Your task to perform on an android device: toggle data saver in the chrome app Image 0: 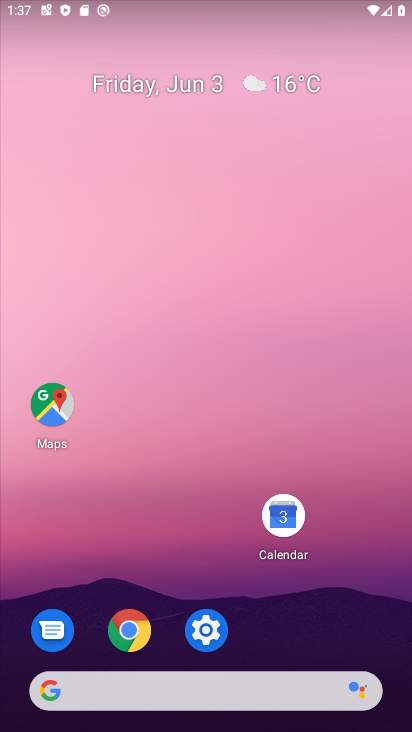
Step 0: press home button
Your task to perform on an android device: toggle data saver in the chrome app Image 1: 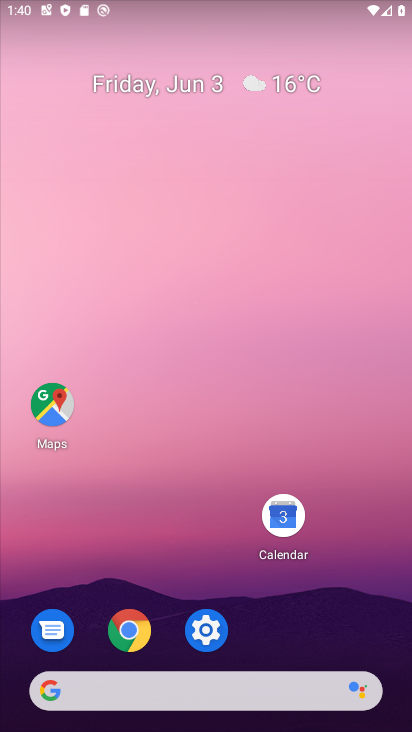
Step 1: drag from (298, 630) to (254, 70)
Your task to perform on an android device: toggle data saver in the chrome app Image 2: 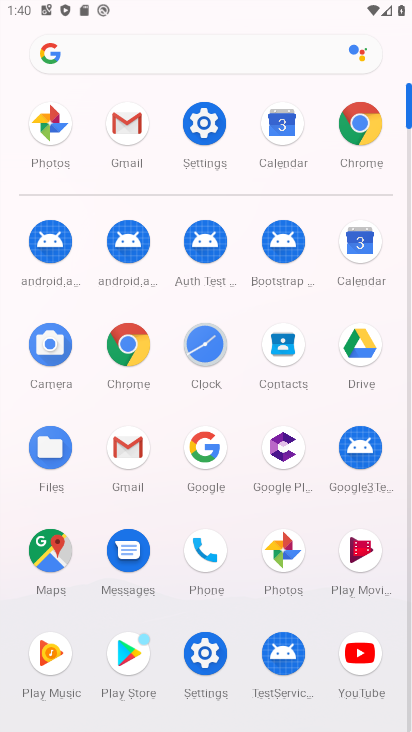
Step 2: click (341, 128)
Your task to perform on an android device: toggle data saver in the chrome app Image 3: 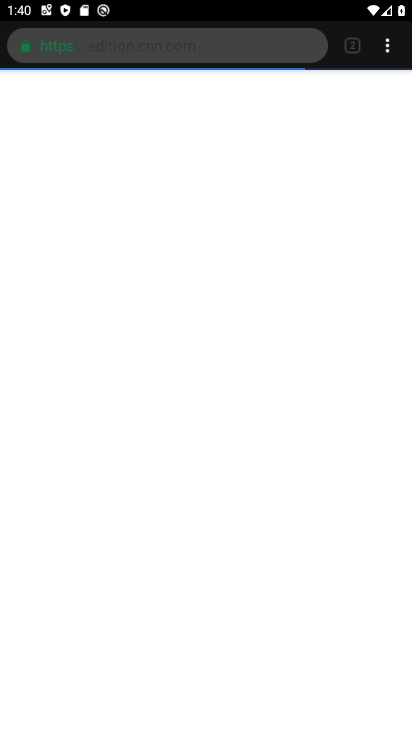
Step 3: click (394, 41)
Your task to perform on an android device: toggle data saver in the chrome app Image 4: 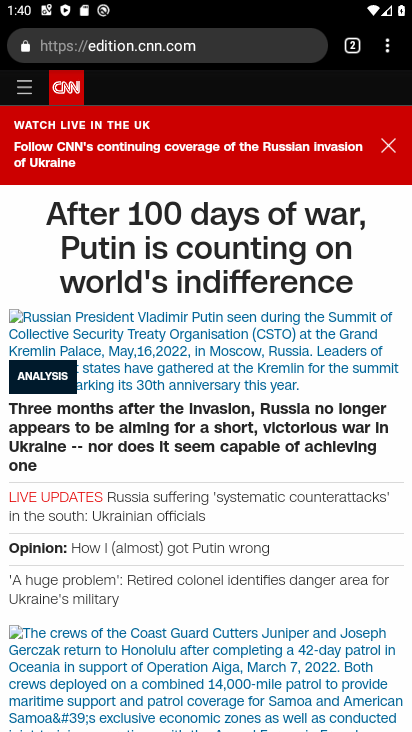
Step 4: click (383, 53)
Your task to perform on an android device: toggle data saver in the chrome app Image 5: 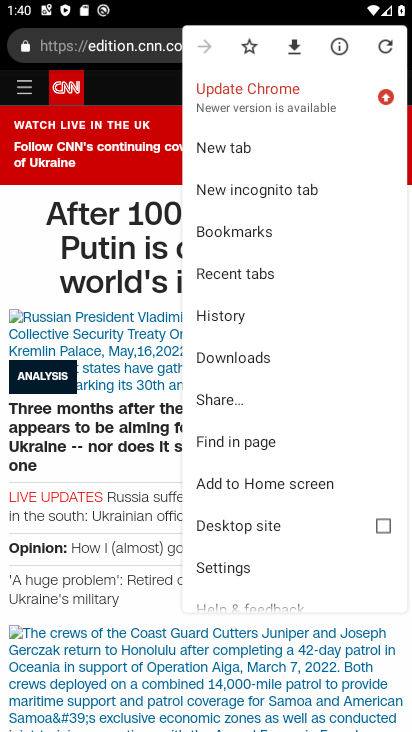
Step 5: click (230, 570)
Your task to perform on an android device: toggle data saver in the chrome app Image 6: 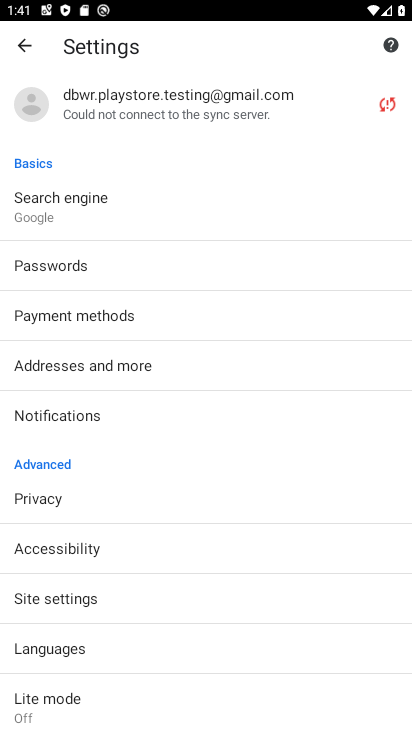
Step 6: drag from (125, 676) to (127, 583)
Your task to perform on an android device: toggle data saver in the chrome app Image 7: 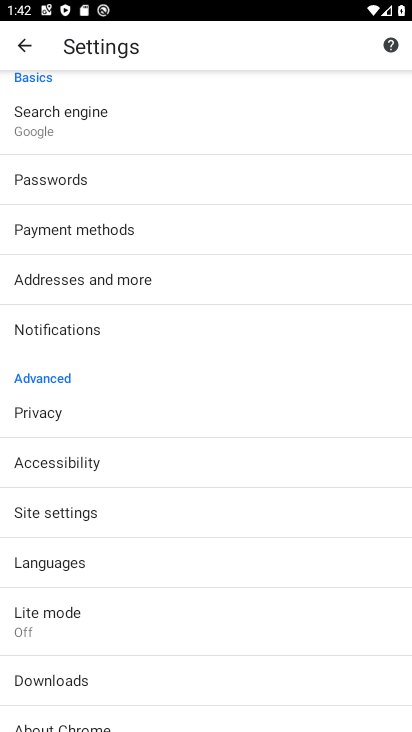
Step 7: click (76, 643)
Your task to perform on an android device: toggle data saver in the chrome app Image 8: 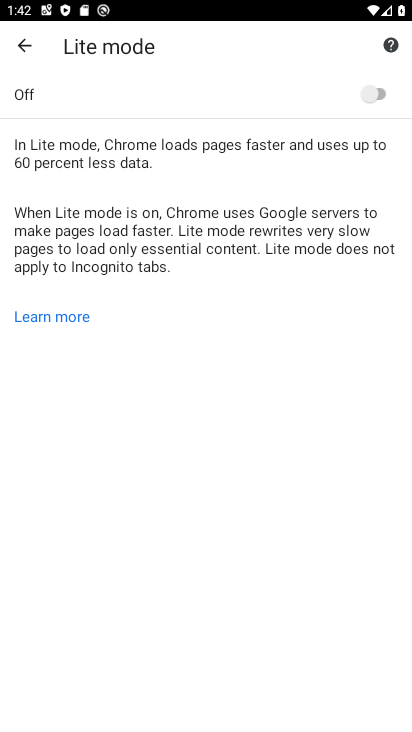
Step 8: task complete